Your task to perform on an android device: turn off translation in the chrome app Image 0: 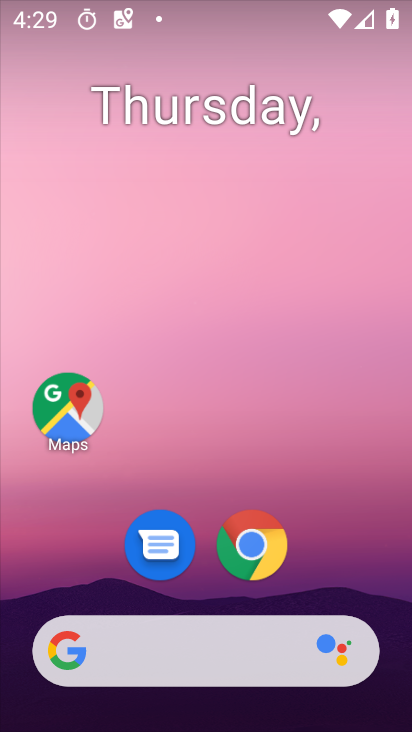
Step 0: click (248, 553)
Your task to perform on an android device: turn off translation in the chrome app Image 1: 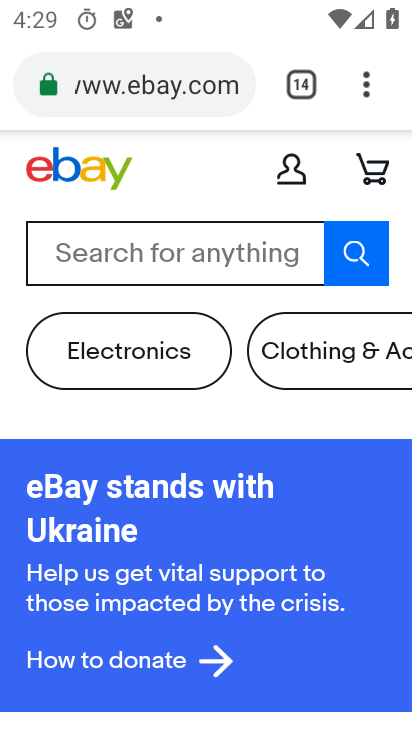
Step 1: click (365, 92)
Your task to perform on an android device: turn off translation in the chrome app Image 2: 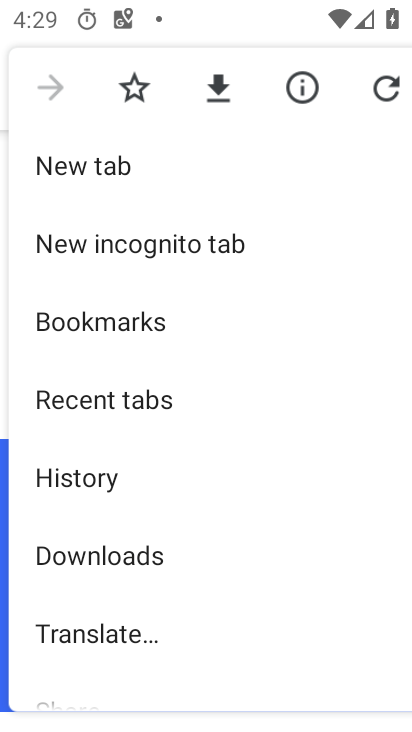
Step 2: drag from (188, 663) to (210, 230)
Your task to perform on an android device: turn off translation in the chrome app Image 3: 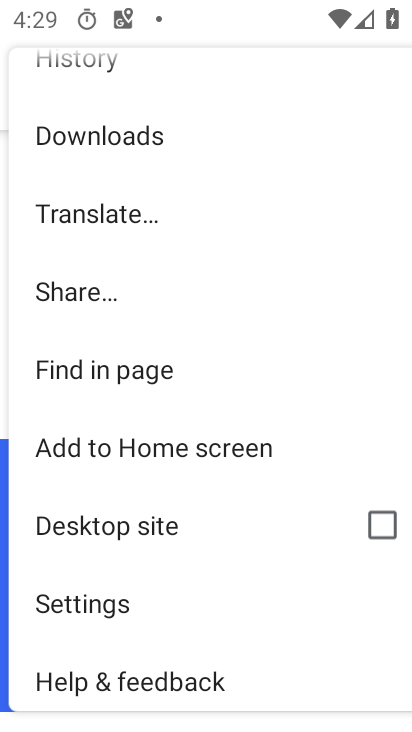
Step 3: click (94, 595)
Your task to perform on an android device: turn off translation in the chrome app Image 4: 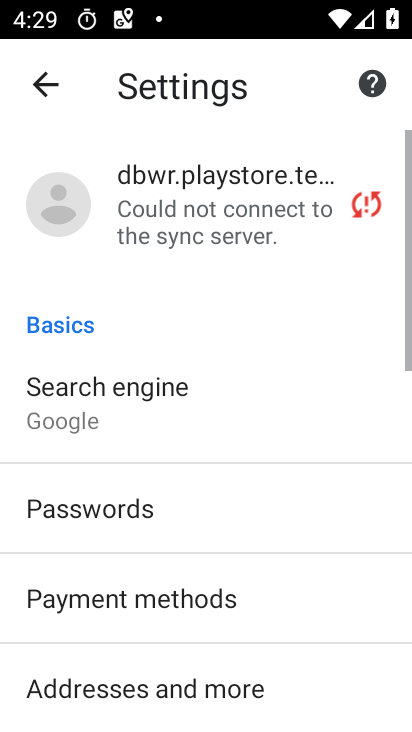
Step 4: drag from (152, 705) to (163, 220)
Your task to perform on an android device: turn off translation in the chrome app Image 5: 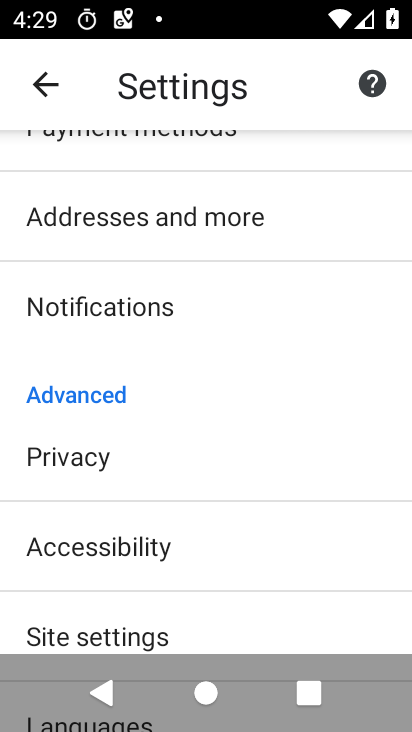
Step 5: drag from (119, 606) to (146, 268)
Your task to perform on an android device: turn off translation in the chrome app Image 6: 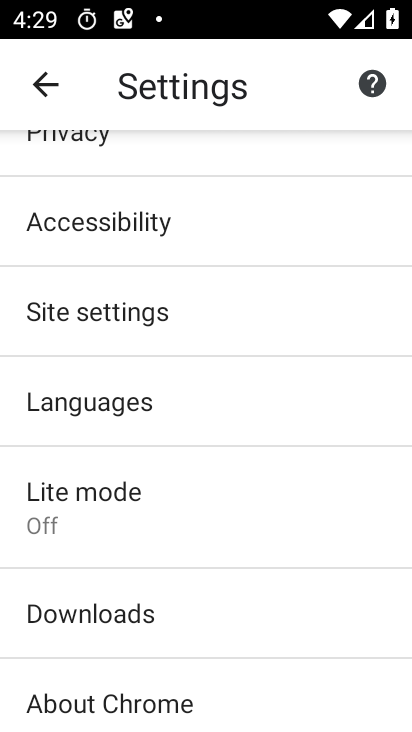
Step 6: click (82, 406)
Your task to perform on an android device: turn off translation in the chrome app Image 7: 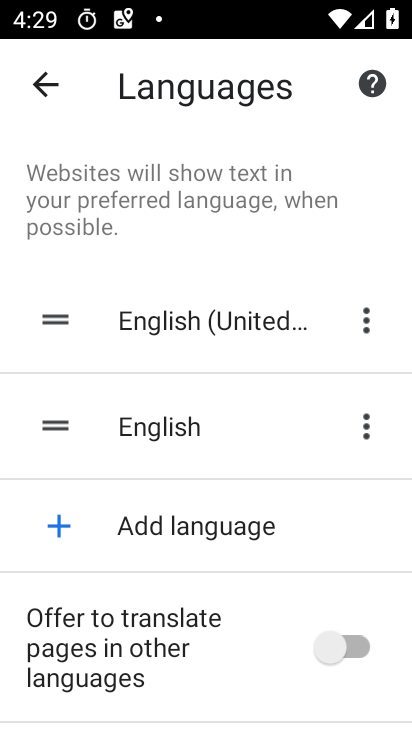
Step 7: task complete